Your task to perform on an android device: turn on sleep mode Image 0: 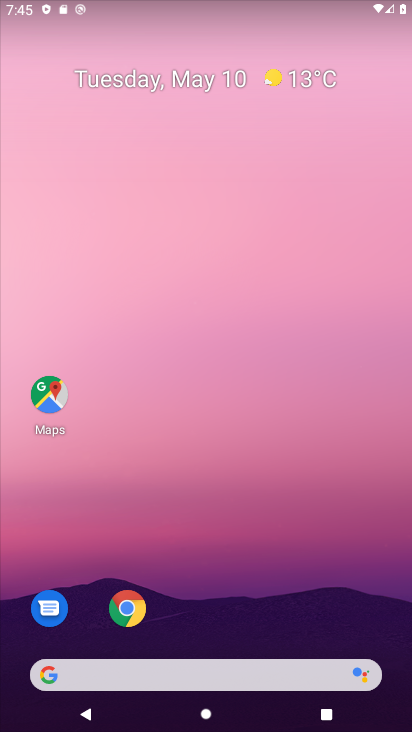
Step 0: press home button
Your task to perform on an android device: turn on sleep mode Image 1: 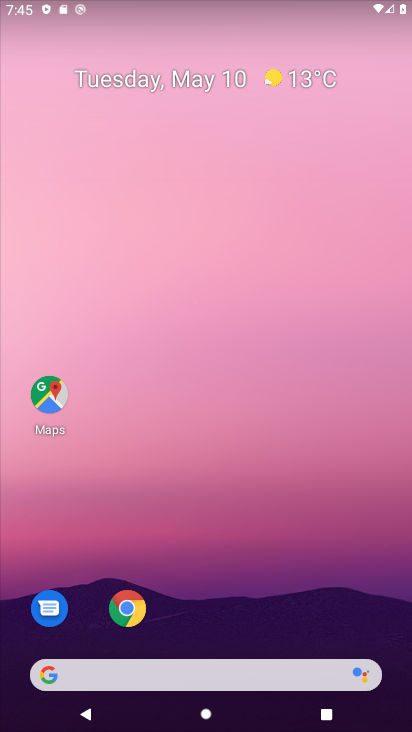
Step 1: drag from (168, 672) to (330, 119)
Your task to perform on an android device: turn on sleep mode Image 2: 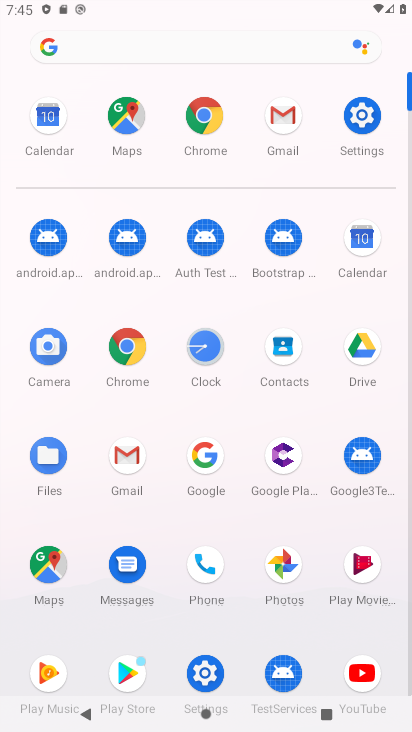
Step 2: click (358, 115)
Your task to perform on an android device: turn on sleep mode Image 3: 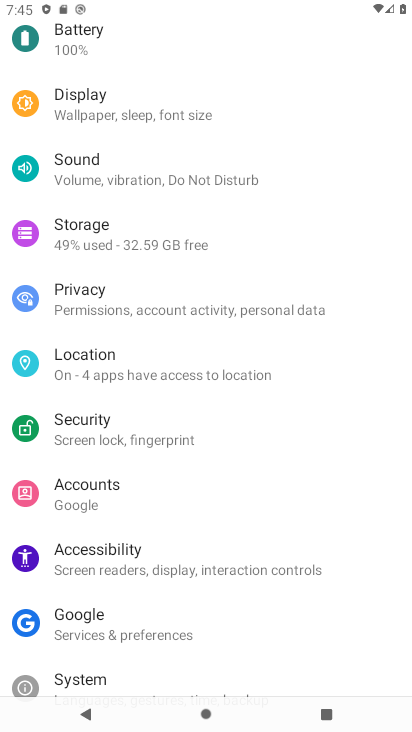
Step 3: click (109, 113)
Your task to perform on an android device: turn on sleep mode Image 4: 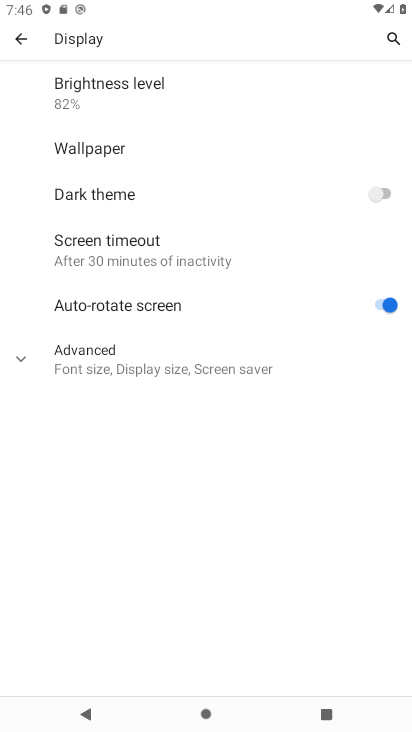
Step 4: task complete